Your task to perform on an android device: Open Android settings Image 0: 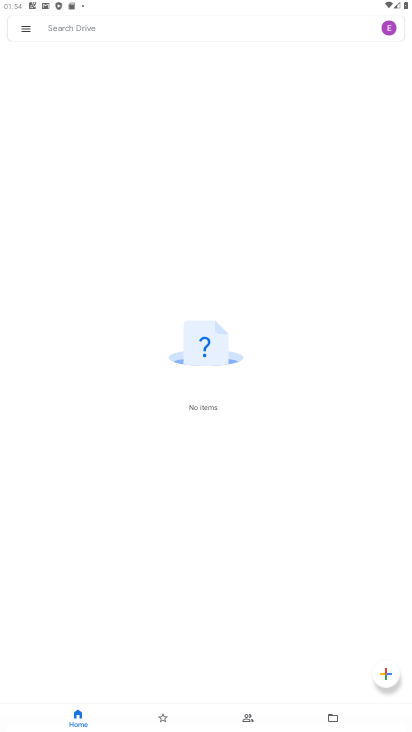
Step 0: press home button
Your task to perform on an android device: Open Android settings Image 1: 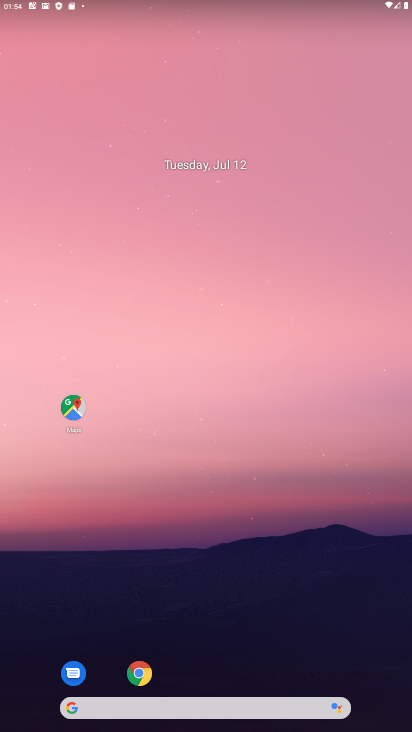
Step 1: drag from (256, 652) to (297, 213)
Your task to perform on an android device: Open Android settings Image 2: 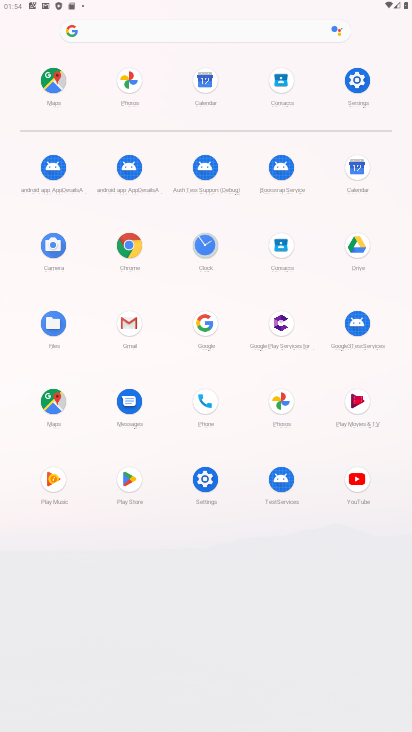
Step 2: click (356, 84)
Your task to perform on an android device: Open Android settings Image 3: 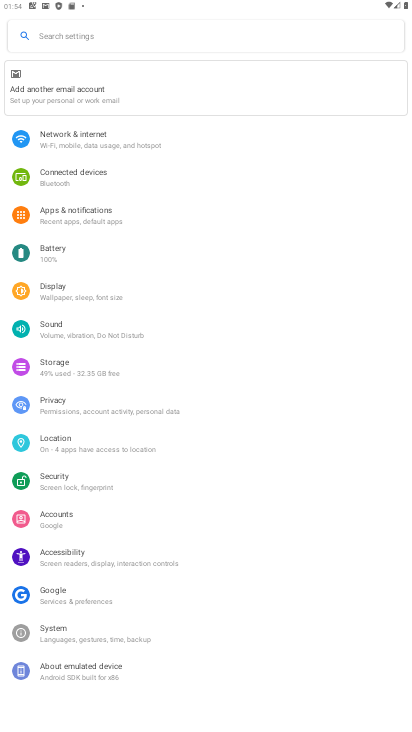
Step 3: click (64, 665)
Your task to perform on an android device: Open Android settings Image 4: 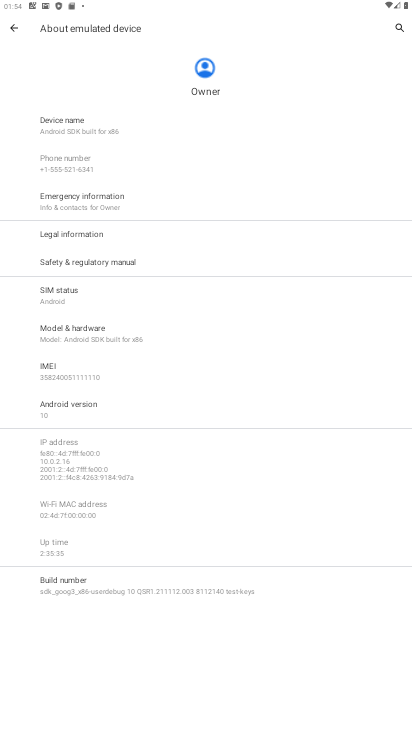
Step 4: click (55, 419)
Your task to perform on an android device: Open Android settings Image 5: 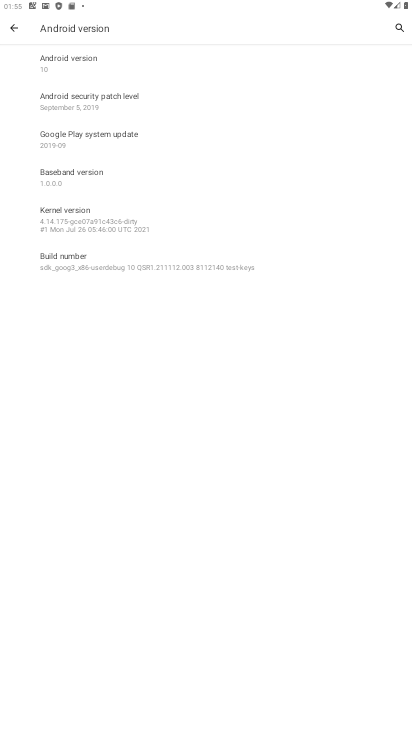
Step 5: task complete